Your task to perform on an android device: Go to Wikipedia Image 0: 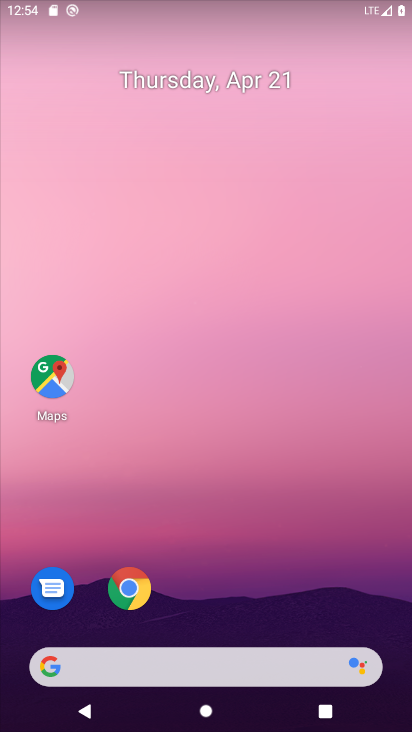
Step 0: click (126, 580)
Your task to perform on an android device: Go to Wikipedia Image 1: 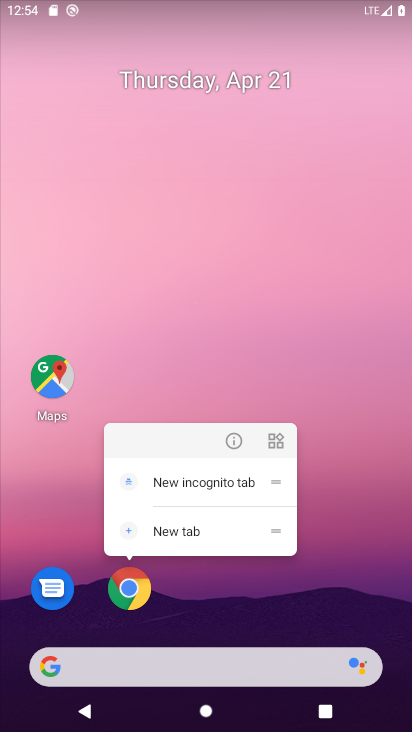
Step 1: click (126, 582)
Your task to perform on an android device: Go to Wikipedia Image 2: 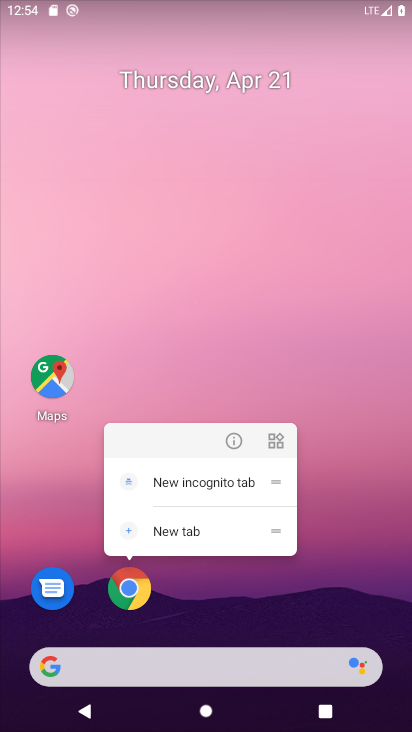
Step 2: click (126, 588)
Your task to perform on an android device: Go to Wikipedia Image 3: 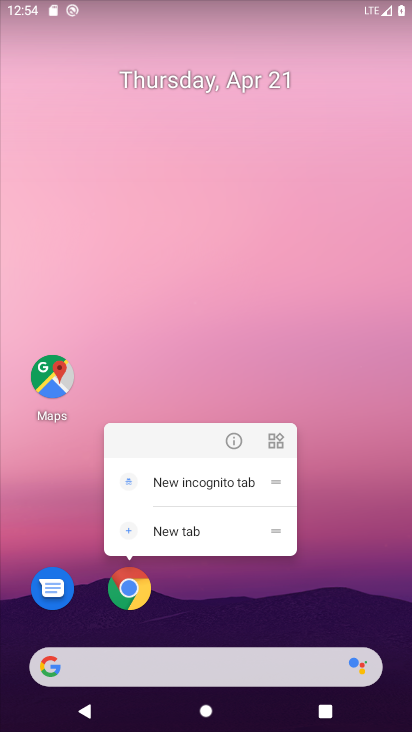
Step 3: click (190, 332)
Your task to perform on an android device: Go to Wikipedia Image 4: 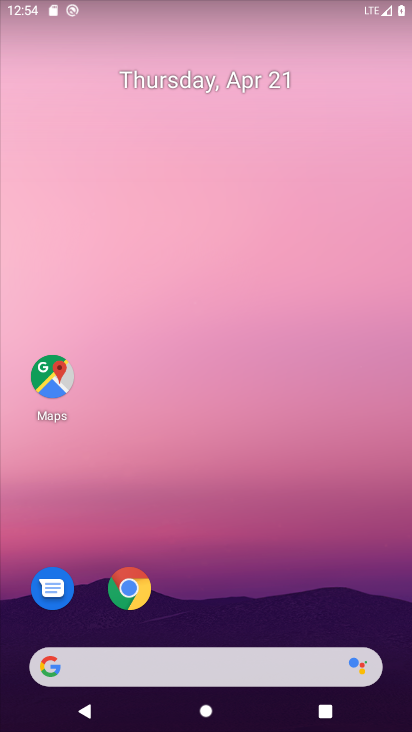
Step 4: click (126, 586)
Your task to perform on an android device: Go to Wikipedia Image 5: 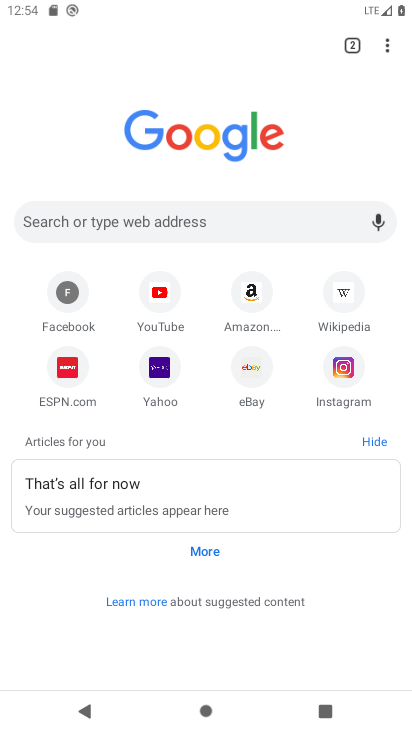
Step 5: click (341, 290)
Your task to perform on an android device: Go to Wikipedia Image 6: 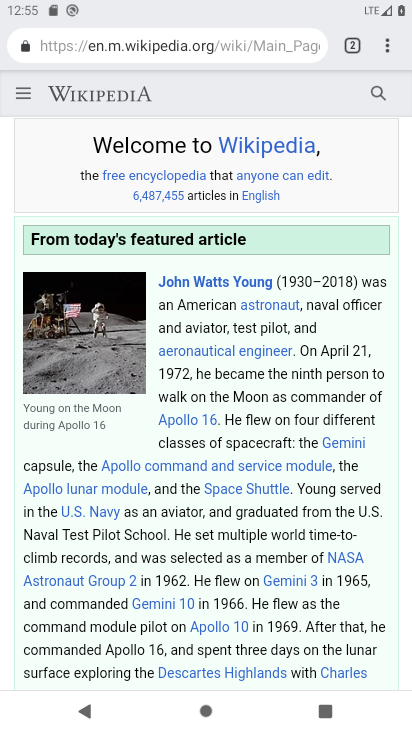
Step 6: task complete